Your task to perform on an android device: When is my next appointment? Image 0: 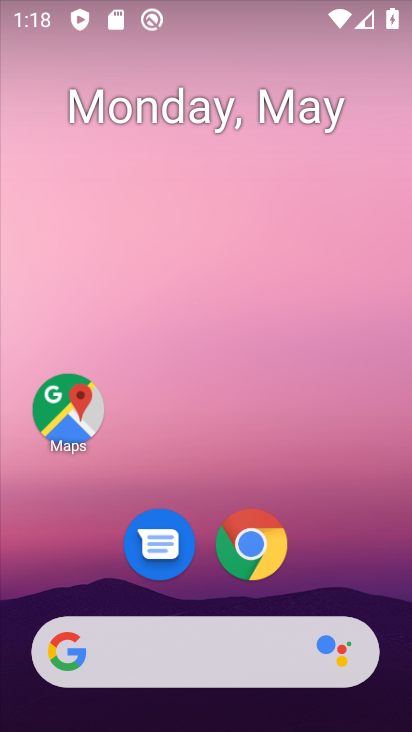
Step 0: drag from (372, 569) to (386, 252)
Your task to perform on an android device: When is my next appointment? Image 1: 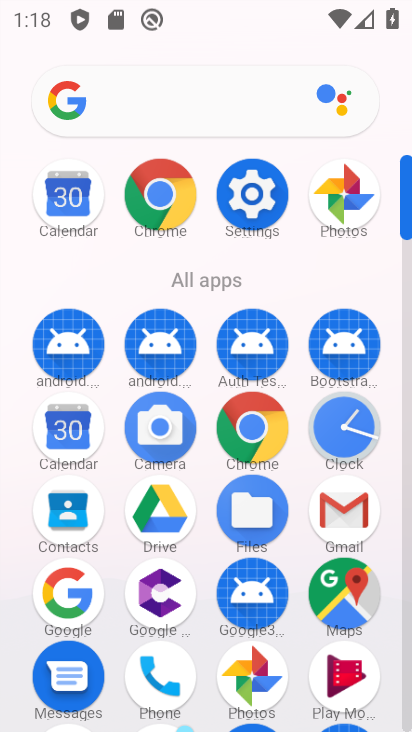
Step 1: click (81, 436)
Your task to perform on an android device: When is my next appointment? Image 2: 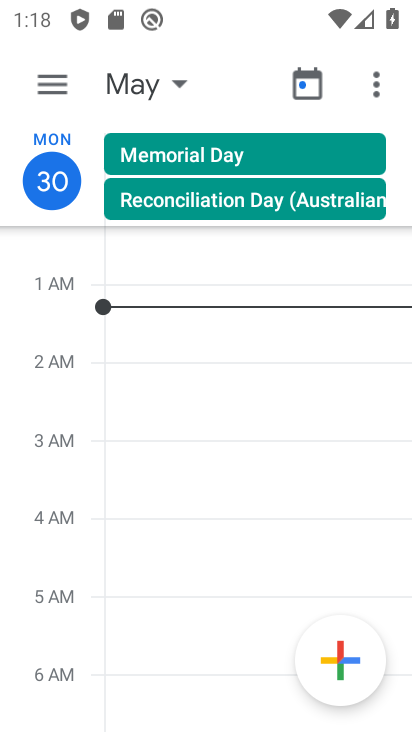
Step 2: click (66, 72)
Your task to perform on an android device: When is my next appointment? Image 3: 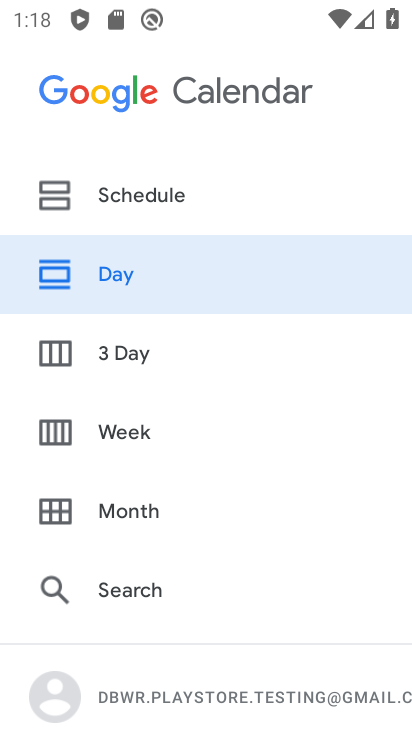
Step 3: click (175, 194)
Your task to perform on an android device: When is my next appointment? Image 4: 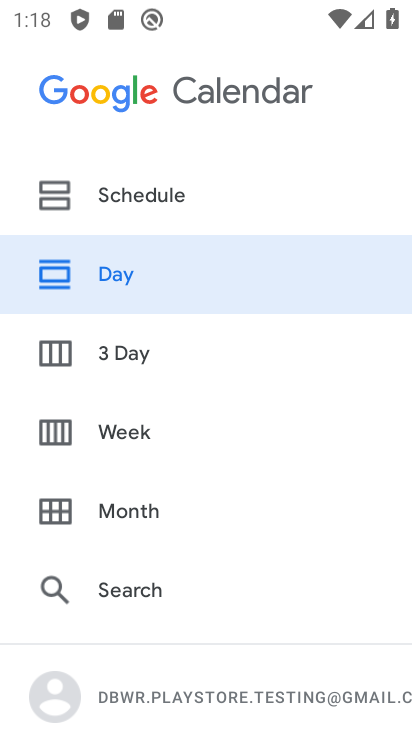
Step 4: click (160, 197)
Your task to perform on an android device: When is my next appointment? Image 5: 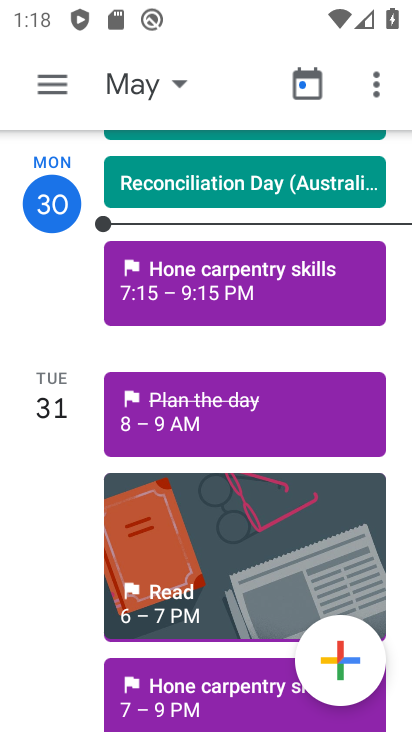
Step 5: click (204, 286)
Your task to perform on an android device: When is my next appointment? Image 6: 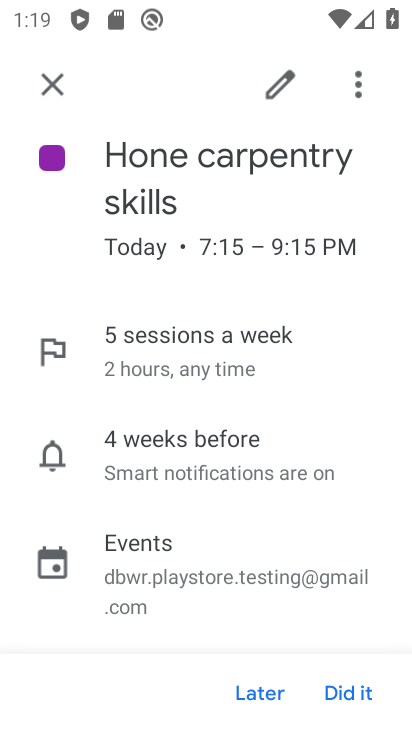
Step 6: task complete